Your task to perform on an android device: Open settings Image 0: 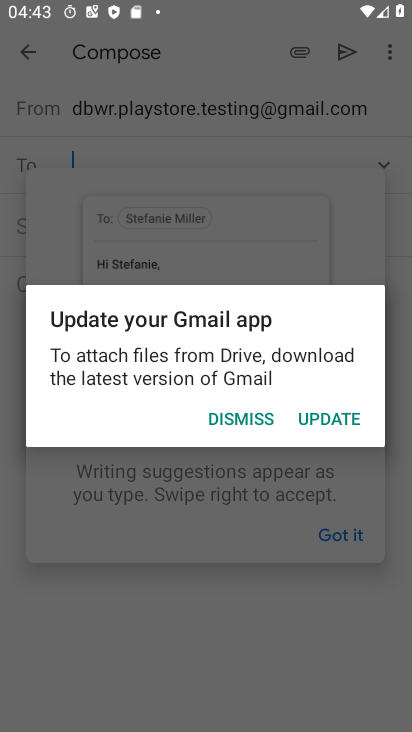
Step 0: press home button
Your task to perform on an android device: Open settings Image 1: 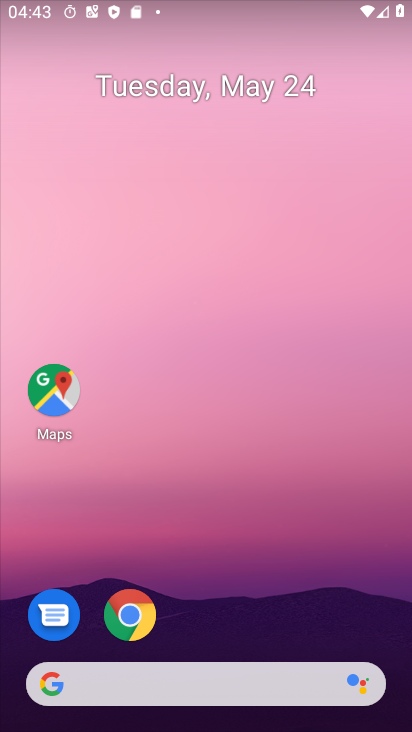
Step 1: click (125, 609)
Your task to perform on an android device: Open settings Image 2: 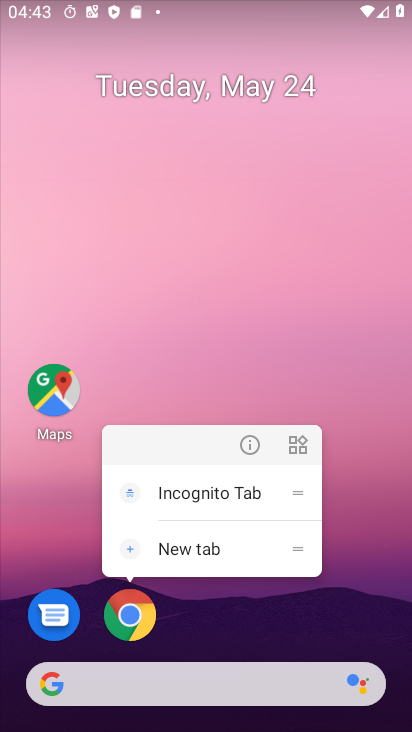
Step 2: click (138, 605)
Your task to perform on an android device: Open settings Image 3: 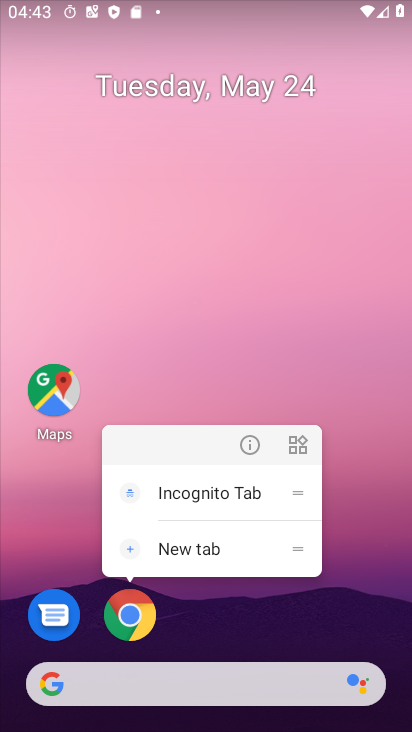
Step 3: click (127, 633)
Your task to perform on an android device: Open settings Image 4: 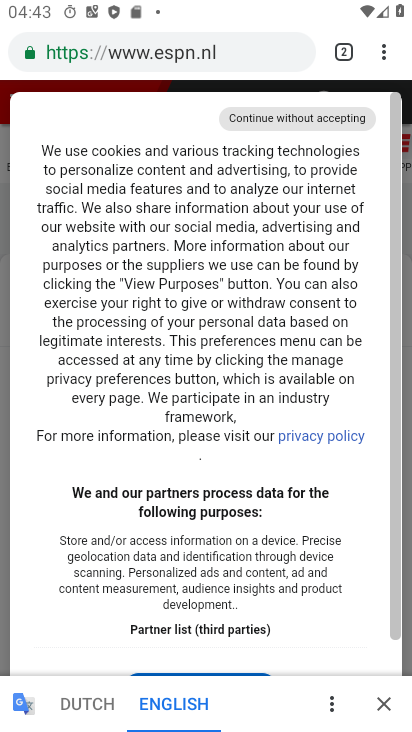
Step 4: task complete